Your task to perform on an android device: add a label to a message in the gmail app Image 0: 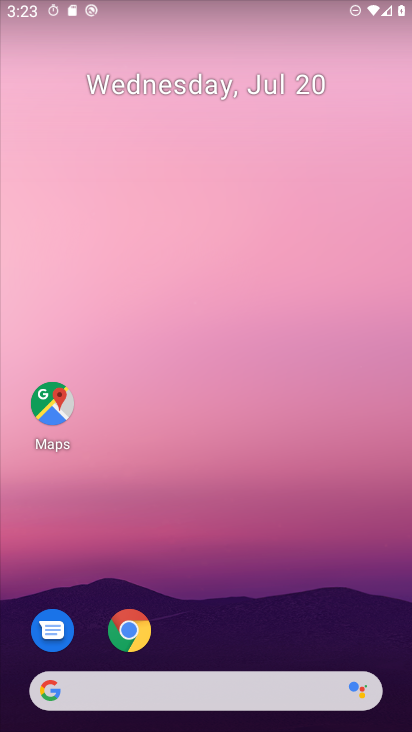
Step 0: click (203, 139)
Your task to perform on an android device: add a label to a message in the gmail app Image 1: 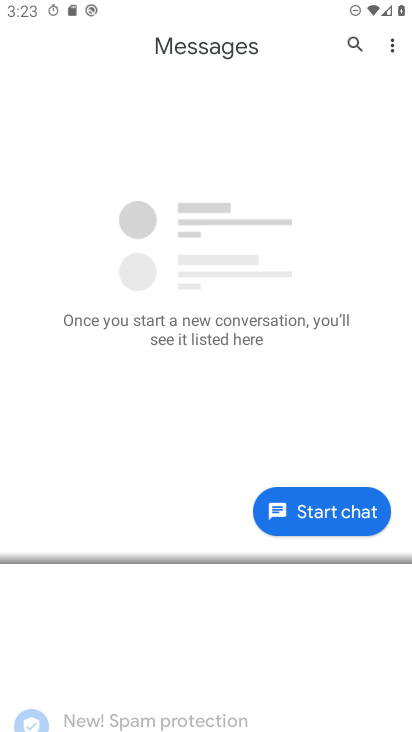
Step 1: drag from (240, 454) to (247, 47)
Your task to perform on an android device: add a label to a message in the gmail app Image 2: 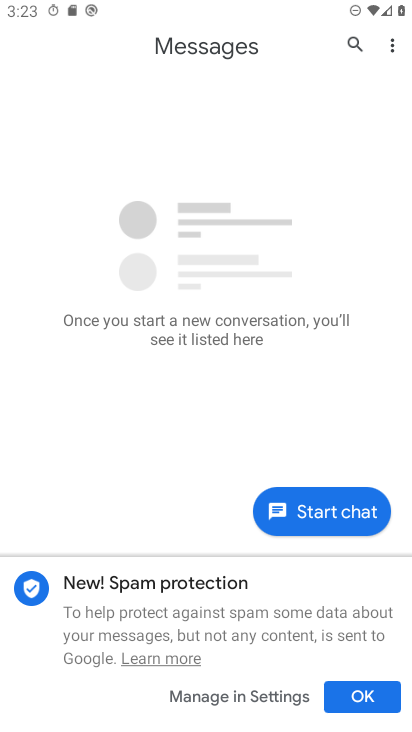
Step 2: press back button
Your task to perform on an android device: add a label to a message in the gmail app Image 3: 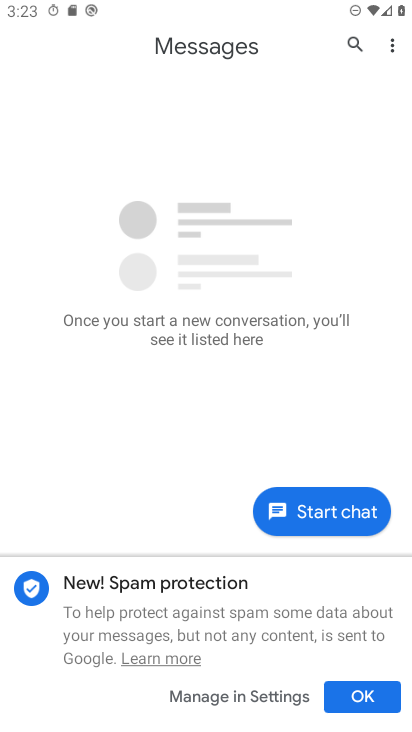
Step 3: press back button
Your task to perform on an android device: add a label to a message in the gmail app Image 4: 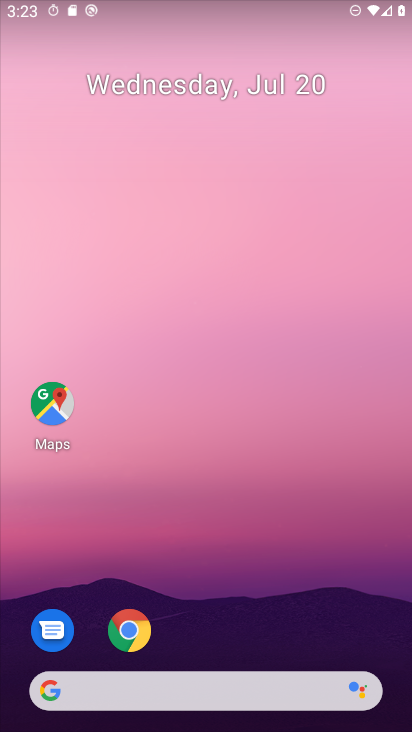
Step 4: drag from (267, 418) to (264, 91)
Your task to perform on an android device: add a label to a message in the gmail app Image 5: 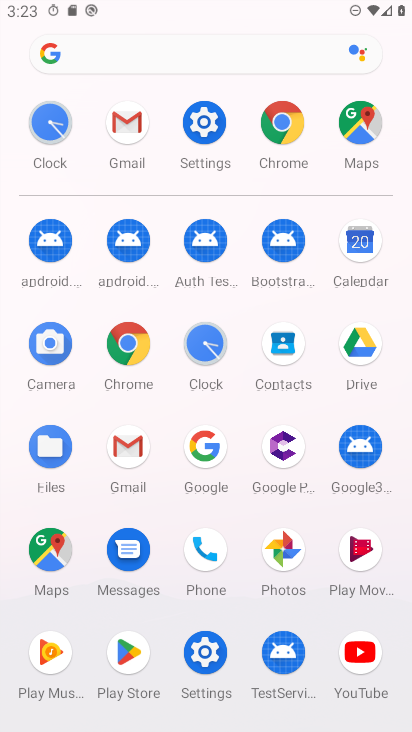
Step 5: click (125, 438)
Your task to perform on an android device: add a label to a message in the gmail app Image 6: 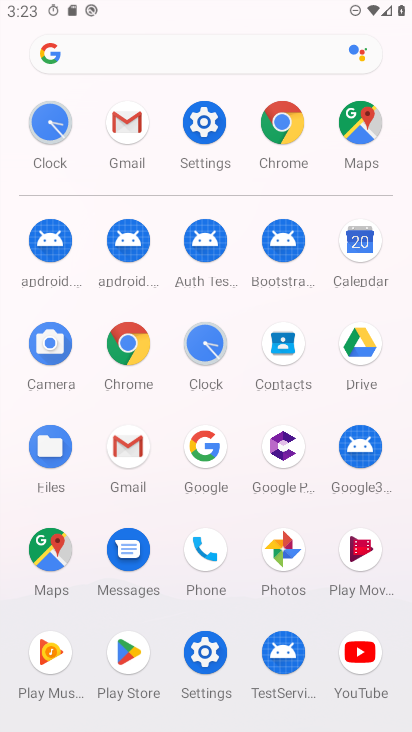
Step 6: click (125, 438)
Your task to perform on an android device: add a label to a message in the gmail app Image 7: 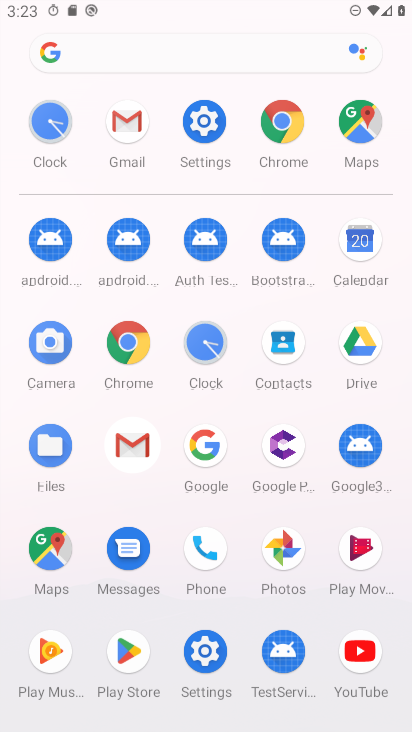
Step 7: click (125, 438)
Your task to perform on an android device: add a label to a message in the gmail app Image 8: 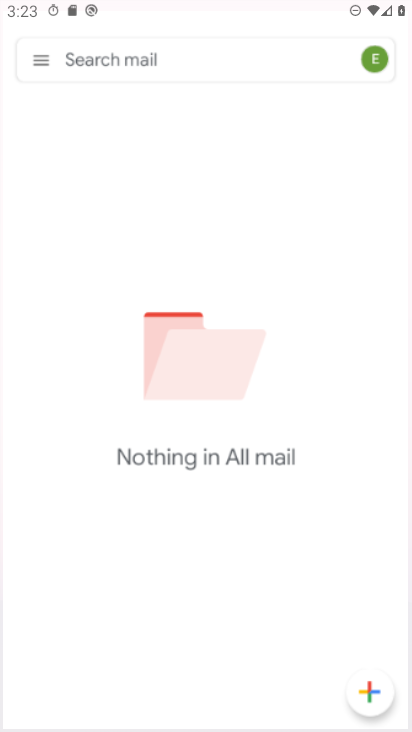
Step 8: click (125, 438)
Your task to perform on an android device: add a label to a message in the gmail app Image 9: 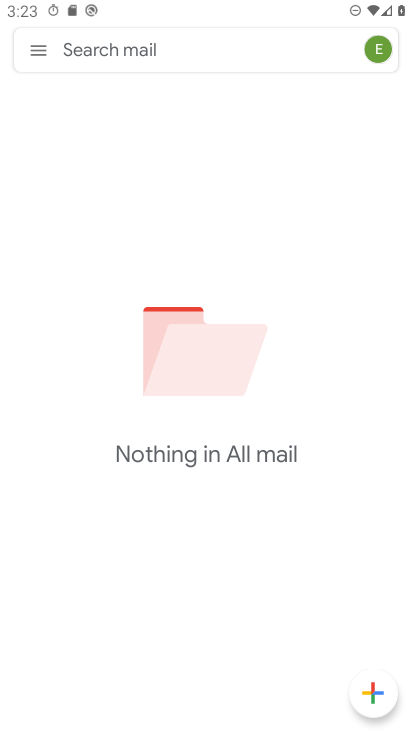
Step 9: task complete